Your task to perform on an android device: turn on bluetooth scan Image 0: 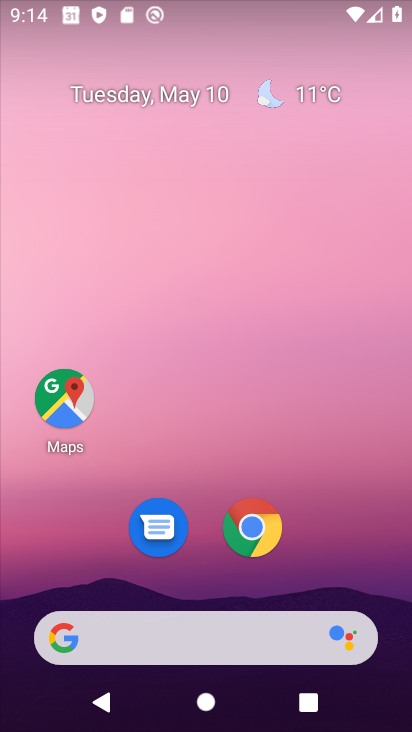
Step 0: drag from (337, 11) to (402, 404)
Your task to perform on an android device: turn on bluetooth scan Image 1: 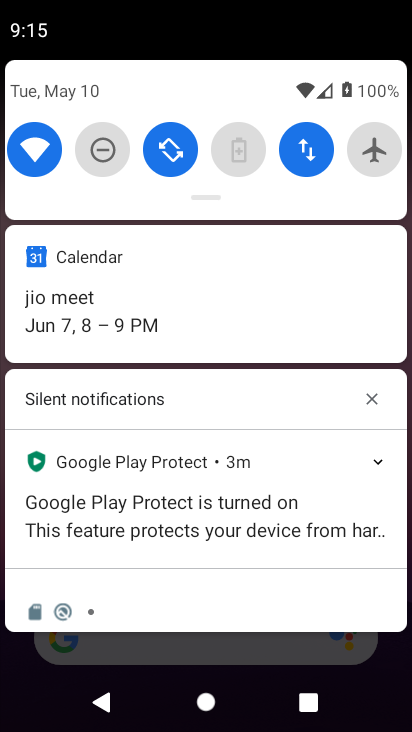
Step 1: drag from (257, 201) to (316, 412)
Your task to perform on an android device: turn on bluetooth scan Image 2: 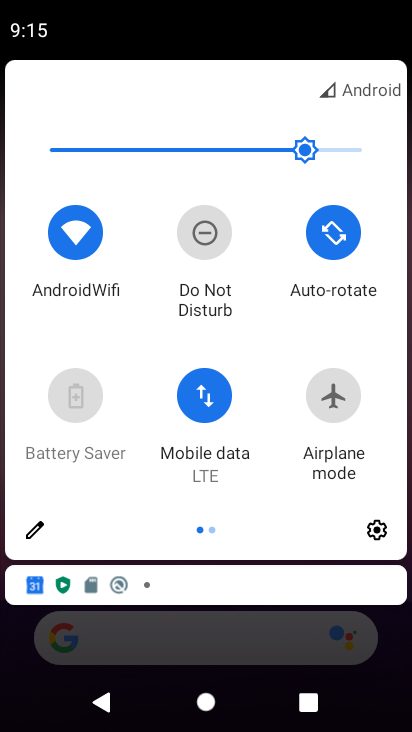
Step 2: click (381, 530)
Your task to perform on an android device: turn on bluetooth scan Image 3: 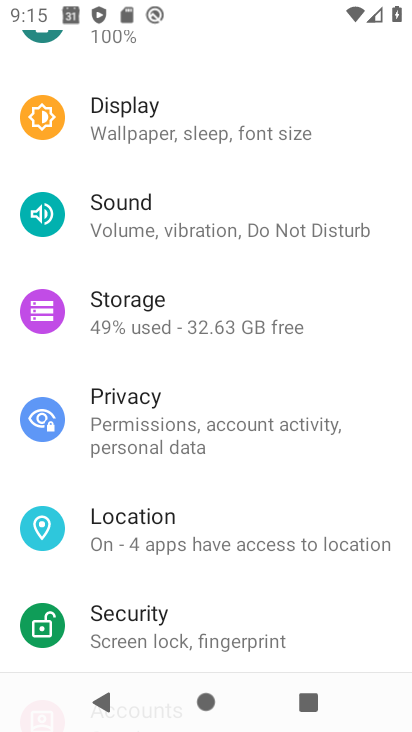
Step 3: click (237, 531)
Your task to perform on an android device: turn on bluetooth scan Image 4: 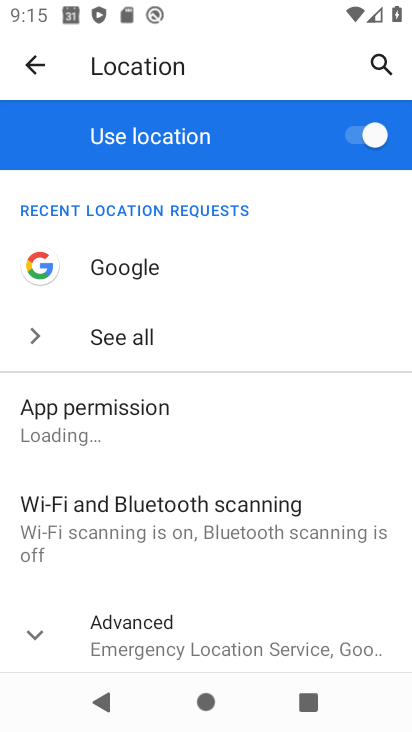
Step 4: click (187, 522)
Your task to perform on an android device: turn on bluetooth scan Image 5: 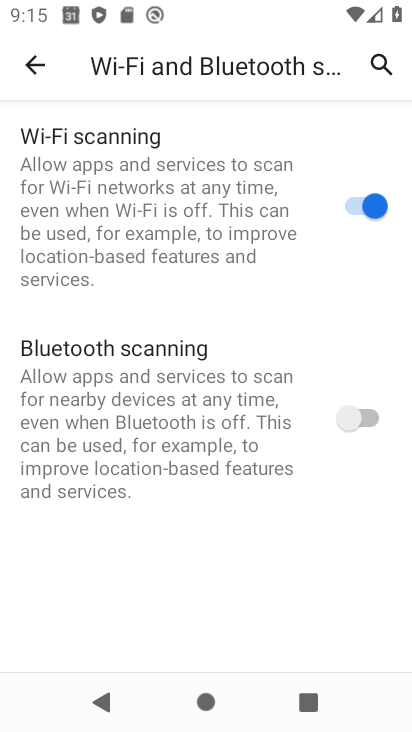
Step 5: click (355, 418)
Your task to perform on an android device: turn on bluetooth scan Image 6: 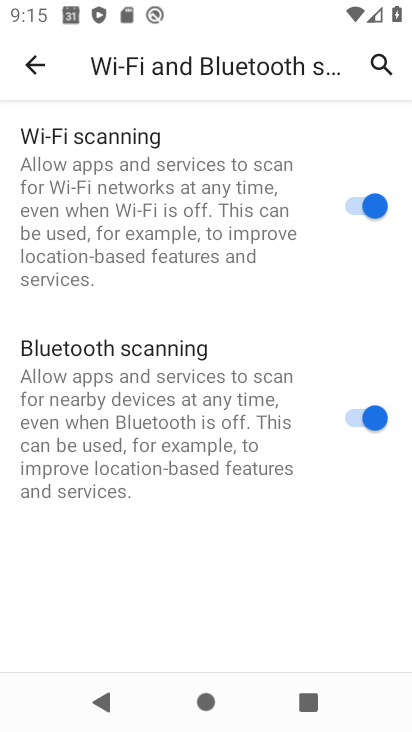
Step 6: task complete